Your task to perform on an android device: See recent photos Image 0: 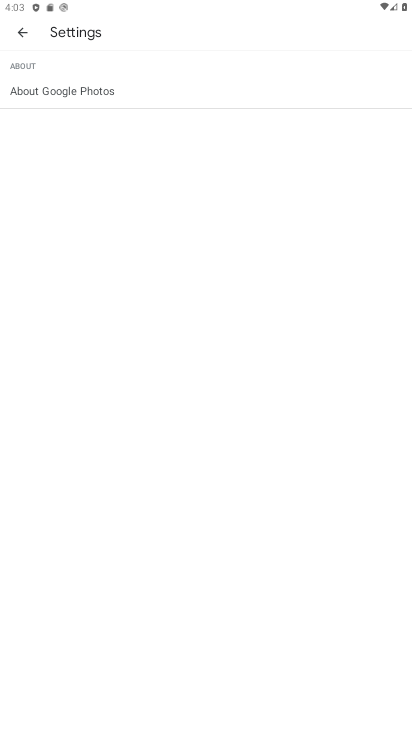
Step 0: press back button
Your task to perform on an android device: See recent photos Image 1: 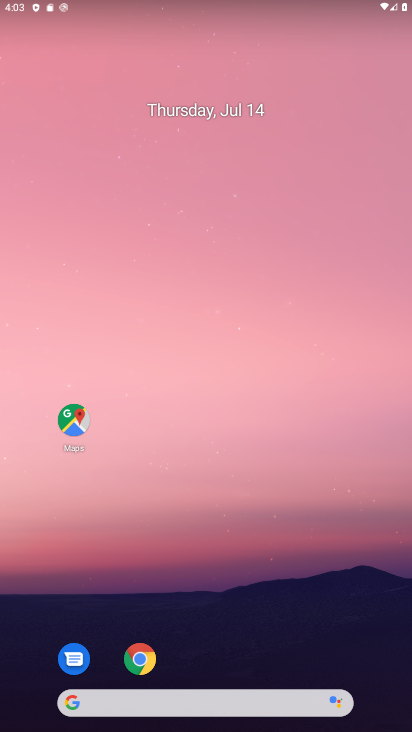
Step 1: drag from (217, 626) to (147, 14)
Your task to perform on an android device: See recent photos Image 2: 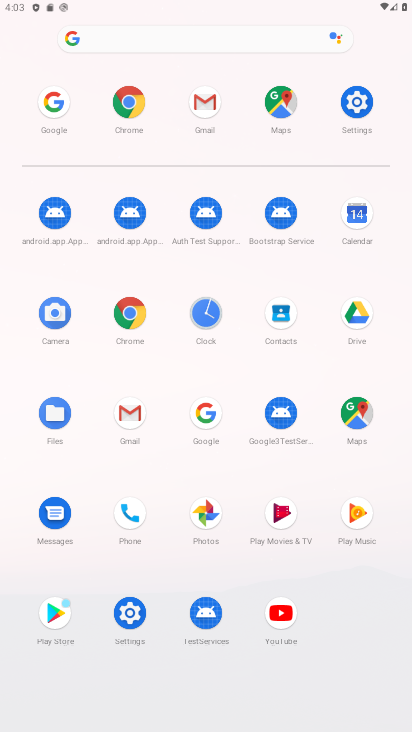
Step 2: click (199, 511)
Your task to perform on an android device: See recent photos Image 3: 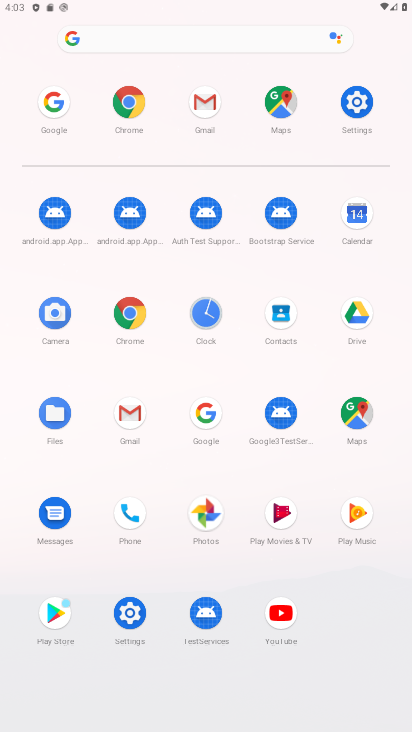
Step 3: click (199, 511)
Your task to perform on an android device: See recent photos Image 4: 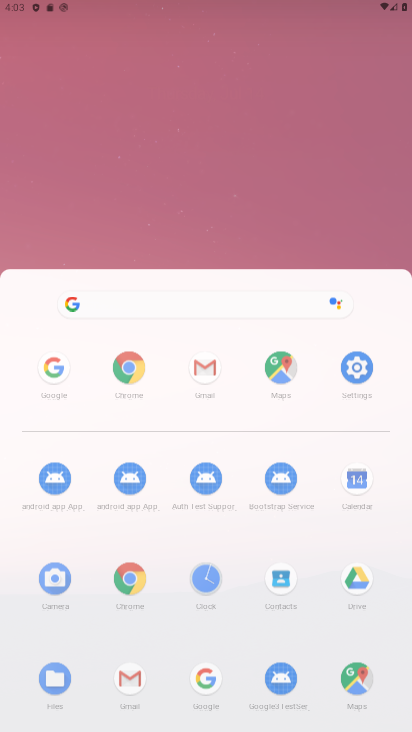
Step 4: click (202, 516)
Your task to perform on an android device: See recent photos Image 5: 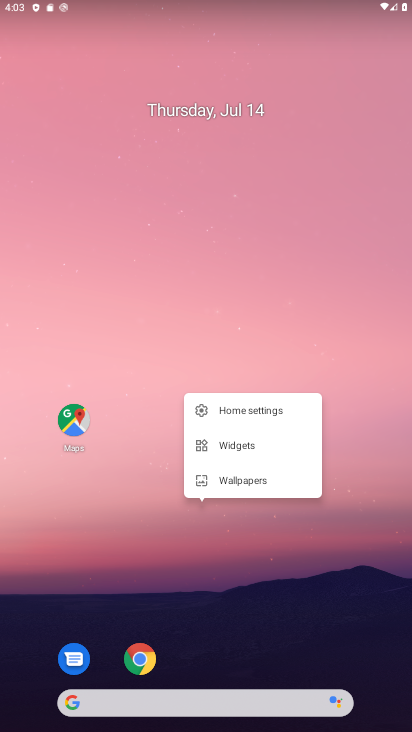
Step 5: click (203, 517)
Your task to perform on an android device: See recent photos Image 6: 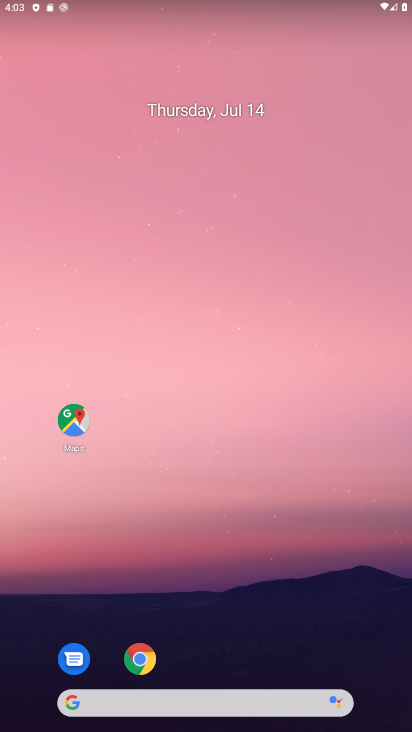
Step 6: drag from (228, 611) to (174, 22)
Your task to perform on an android device: See recent photos Image 7: 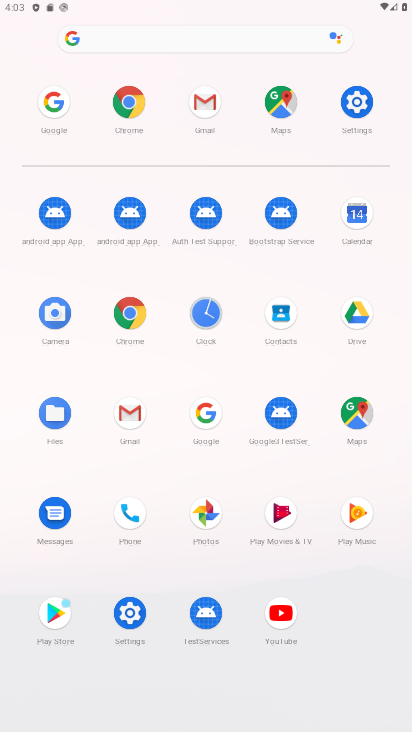
Step 7: click (211, 515)
Your task to perform on an android device: See recent photos Image 8: 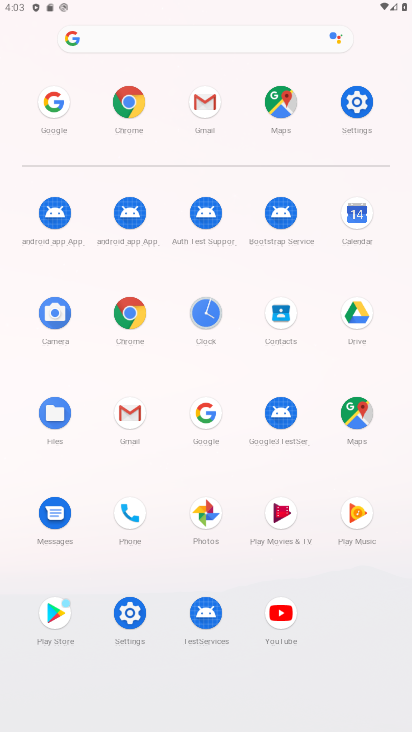
Step 8: click (205, 523)
Your task to perform on an android device: See recent photos Image 9: 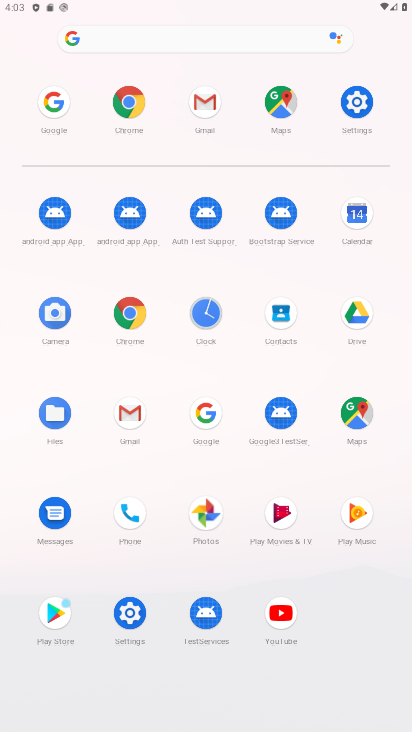
Step 9: click (205, 523)
Your task to perform on an android device: See recent photos Image 10: 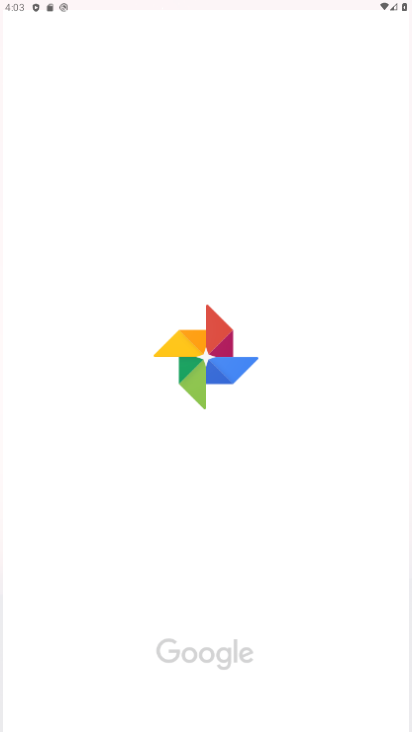
Step 10: click (205, 520)
Your task to perform on an android device: See recent photos Image 11: 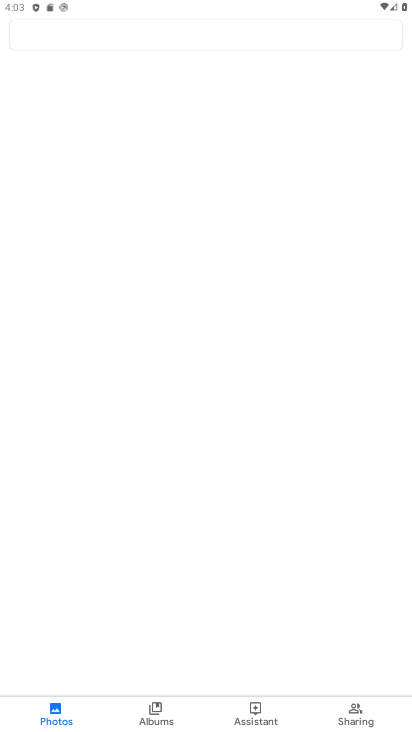
Step 11: click (203, 518)
Your task to perform on an android device: See recent photos Image 12: 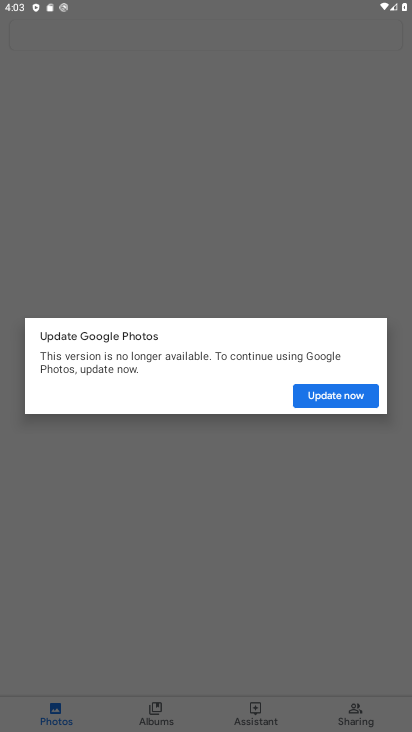
Step 12: click (204, 518)
Your task to perform on an android device: See recent photos Image 13: 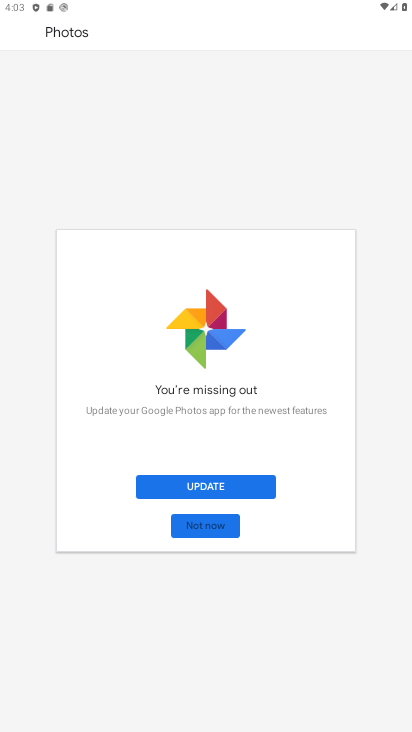
Step 13: click (209, 515)
Your task to perform on an android device: See recent photos Image 14: 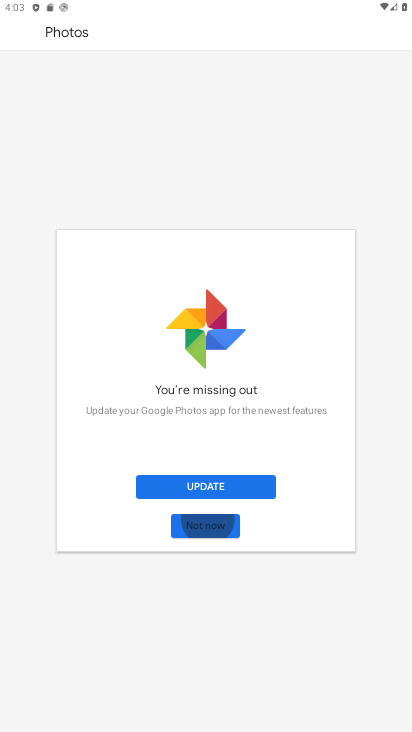
Step 14: click (207, 516)
Your task to perform on an android device: See recent photos Image 15: 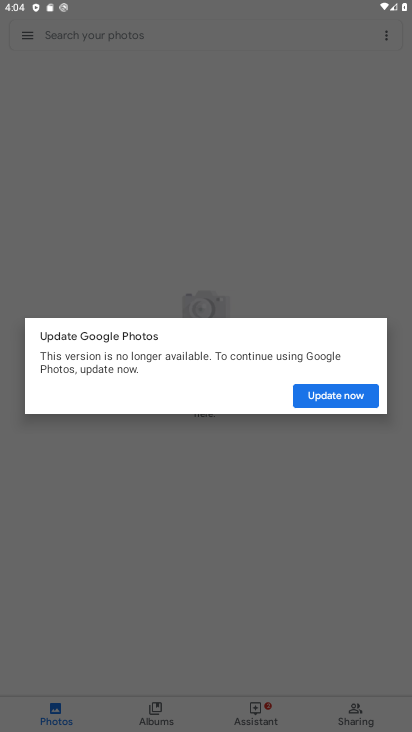
Step 15: click (286, 238)
Your task to perform on an android device: See recent photos Image 16: 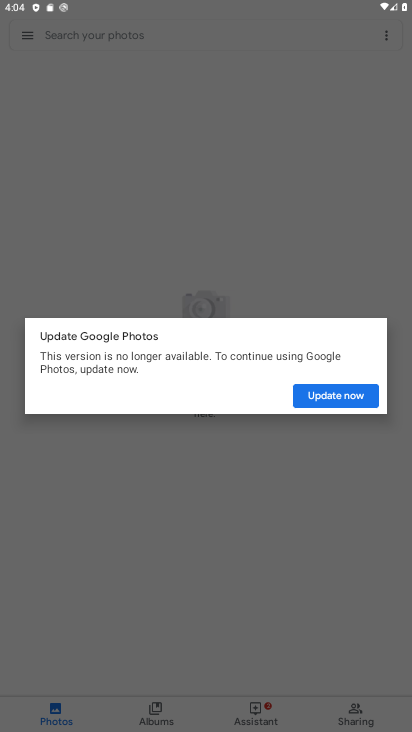
Step 16: task complete